Your task to perform on an android device: turn off location Image 0: 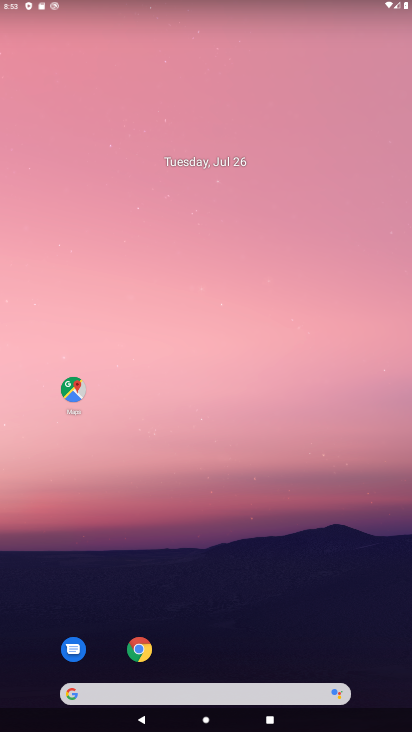
Step 0: press home button
Your task to perform on an android device: turn off location Image 1: 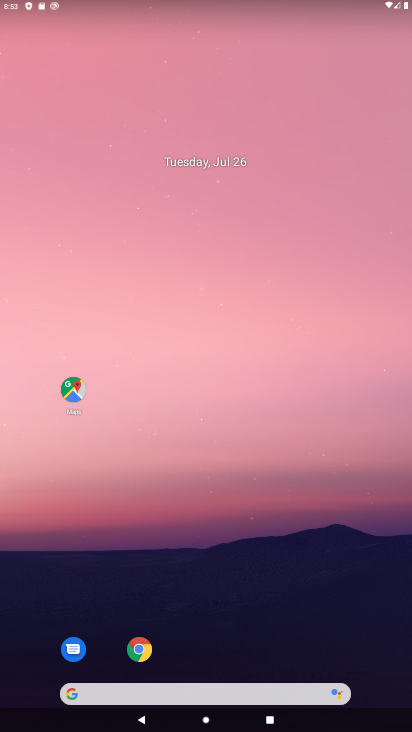
Step 1: drag from (351, 615) to (360, 154)
Your task to perform on an android device: turn off location Image 2: 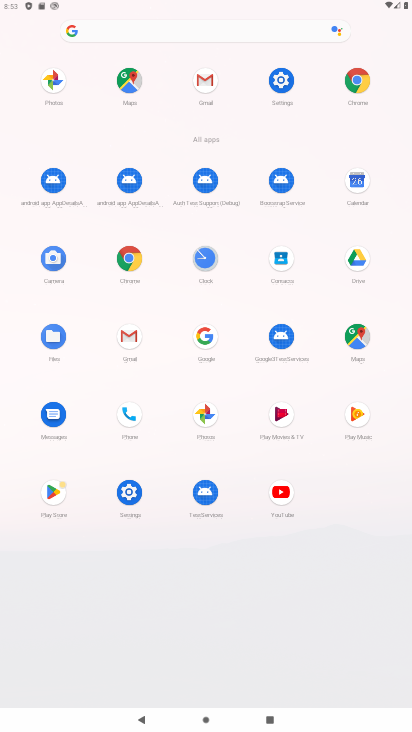
Step 2: click (280, 77)
Your task to perform on an android device: turn off location Image 3: 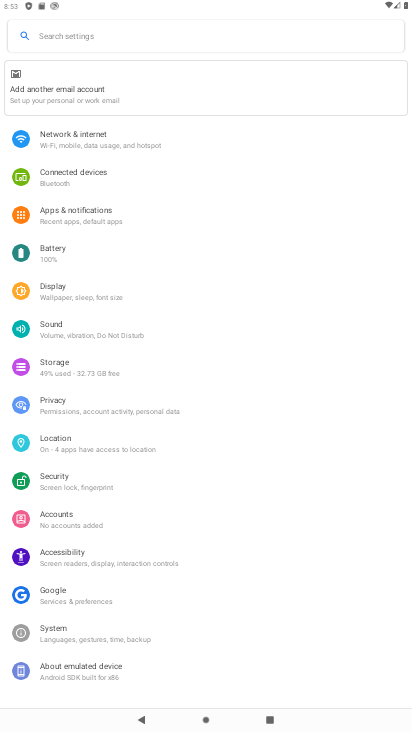
Step 3: drag from (280, 225) to (281, 337)
Your task to perform on an android device: turn off location Image 4: 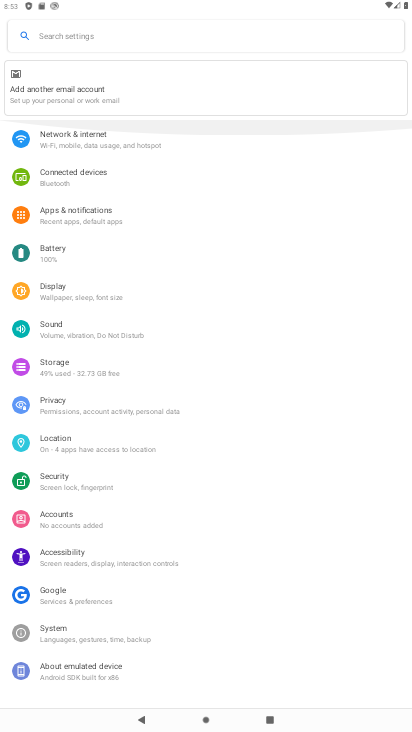
Step 4: drag from (281, 433) to (293, 340)
Your task to perform on an android device: turn off location Image 5: 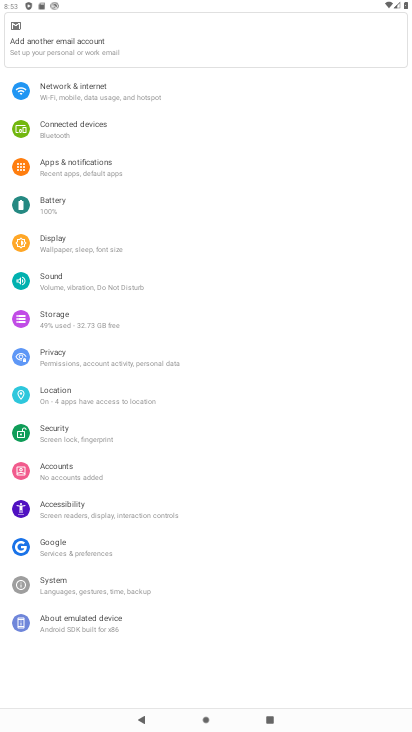
Step 5: click (224, 399)
Your task to perform on an android device: turn off location Image 6: 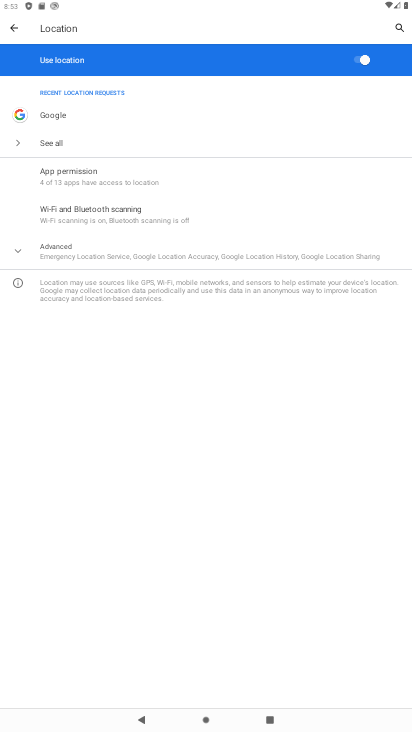
Step 6: click (358, 63)
Your task to perform on an android device: turn off location Image 7: 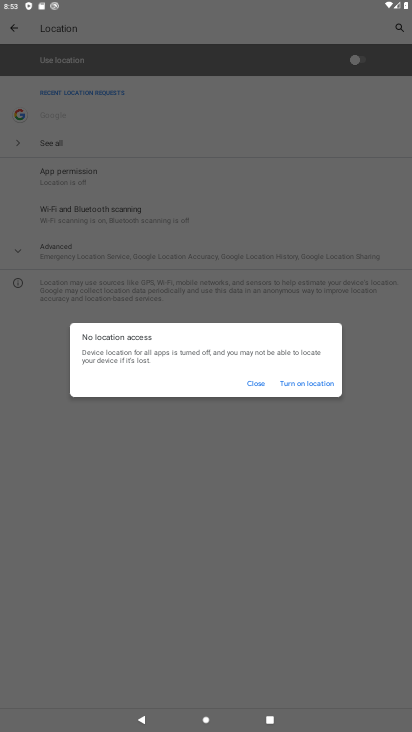
Step 7: task complete